Your task to perform on an android device: open sync settings in chrome Image 0: 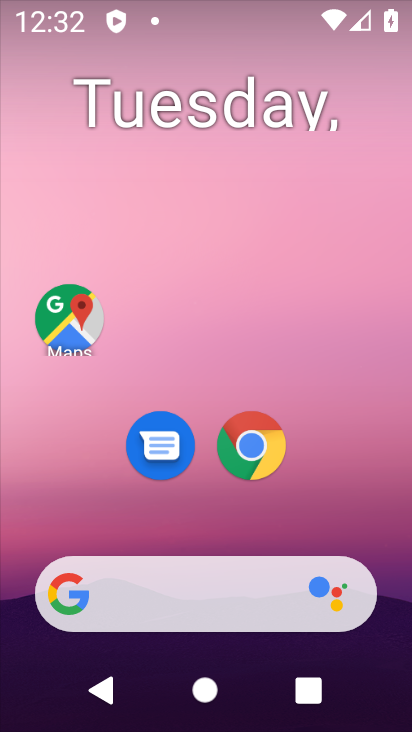
Step 0: click (251, 459)
Your task to perform on an android device: open sync settings in chrome Image 1: 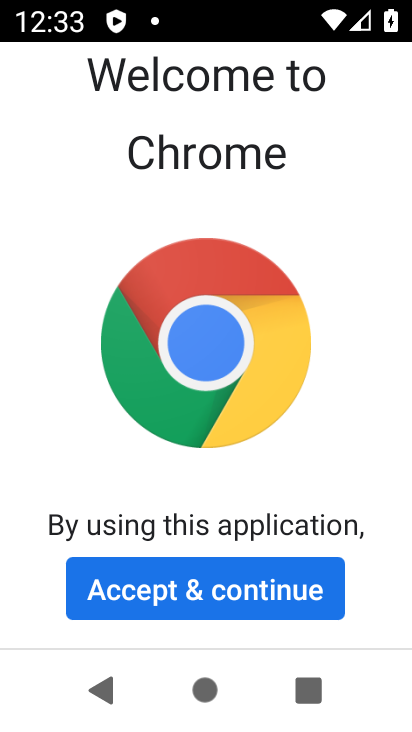
Step 1: click (247, 594)
Your task to perform on an android device: open sync settings in chrome Image 2: 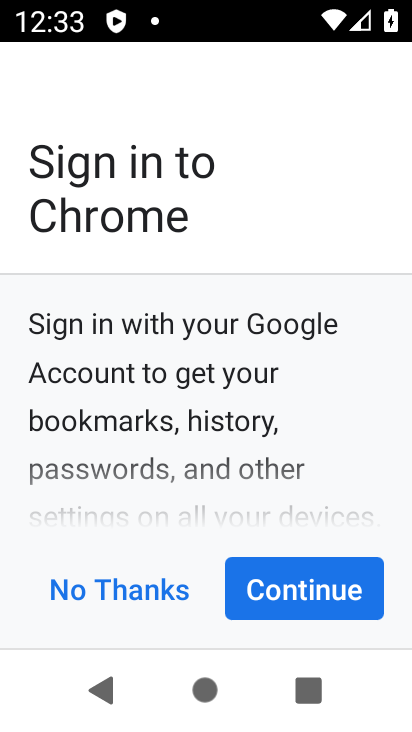
Step 2: click (315, 600)
Your task to perform on an android device: open sync settings in chrome Image 3: 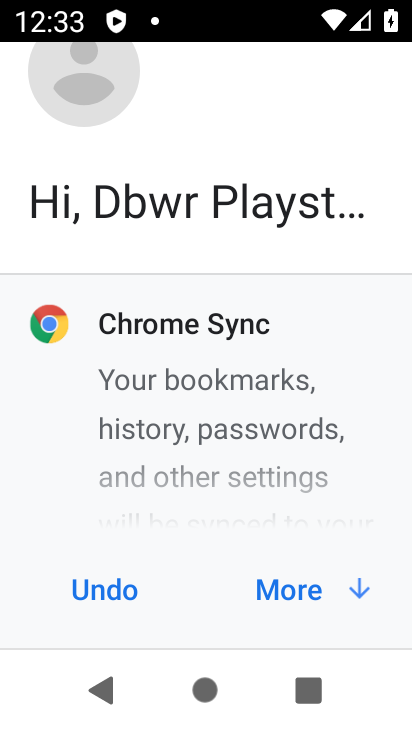
Step 3: click (314, 599)
Your task to perform on an android device: open sync settings in chrome Image 4: 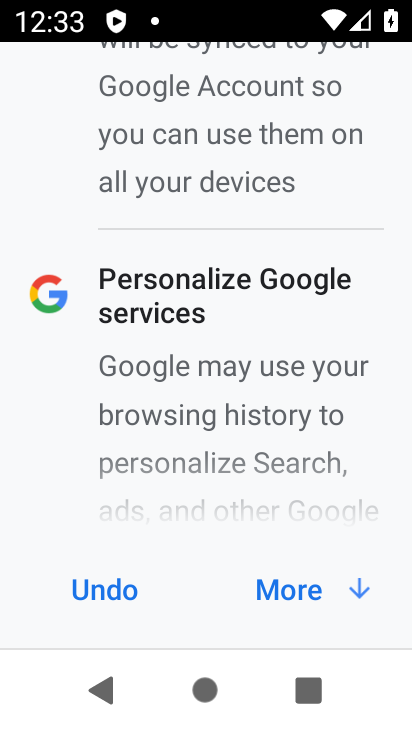
Step 4: click (314, 600)
Your task to perform on an android device: open sync settings in chrome Image 5: 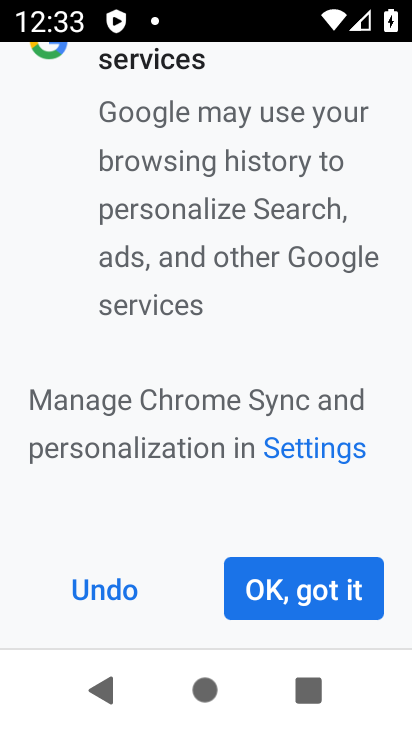
Step 5: click (314, 599)
Your task to perform on an android device: open sync settings in chrome Image 6: 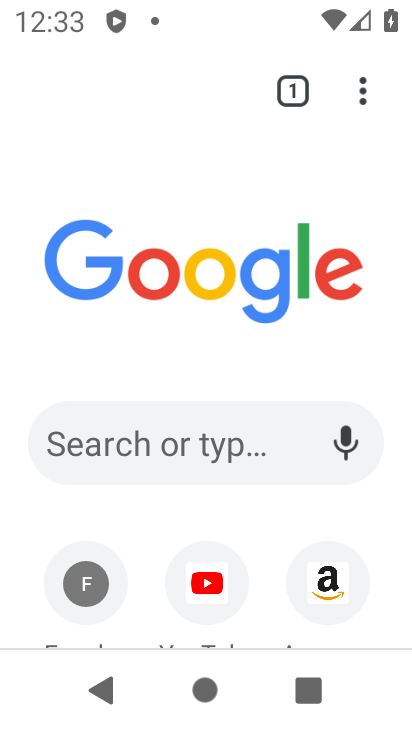
Step 6: drag from (372, 106) to (235, 491)
Your task to perform on an android device: open sync settings in chrome Image 7: 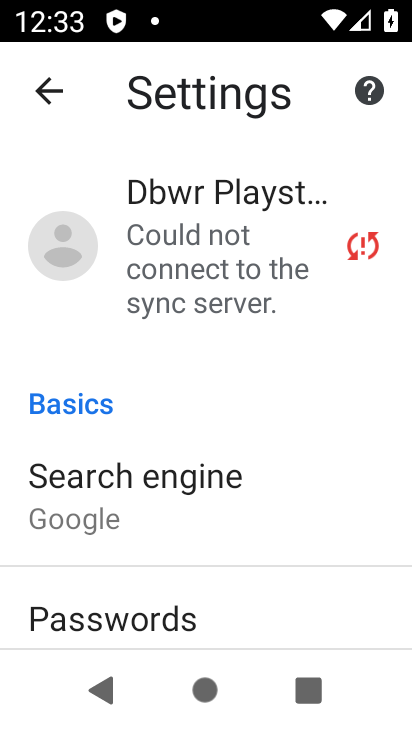
Step 7: click (215, 303)
Your task to perform on an android device: open sync settings in chrome Image 8: 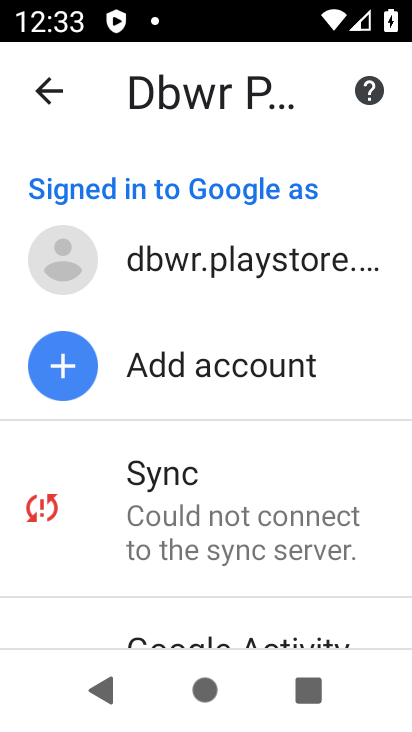
Step 8: click (210, 509)
Your task to perform on an android device: open sync settings in chrome Image 9: 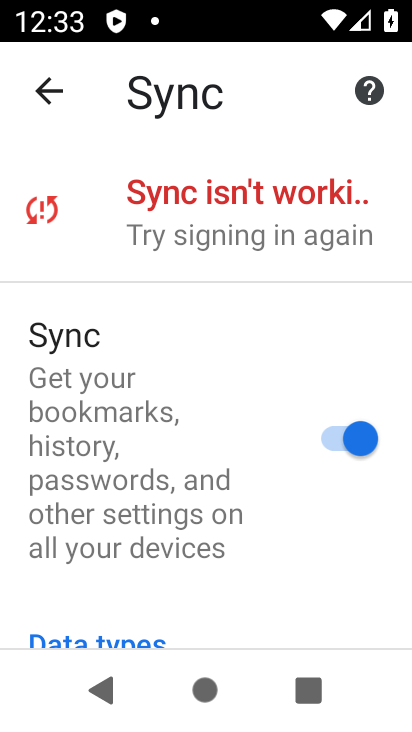
Step 9: task complete